Your task to perform on an android device: set the stopwatch Image 0: 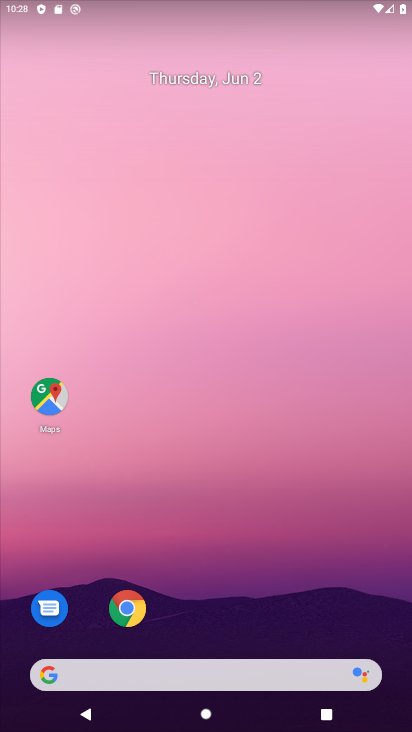
Step 0: click (274, 215)
Your task to perform on an android device: set the stopwatch Image 1: 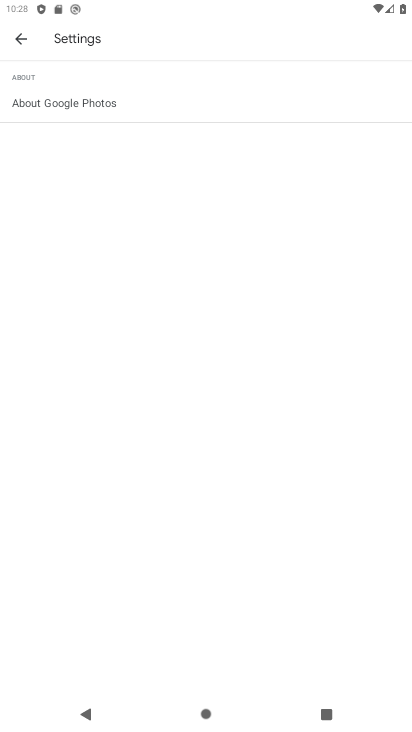
Step 1: press home button
Your task to perform on an android device: set the stopwatch Image 2: 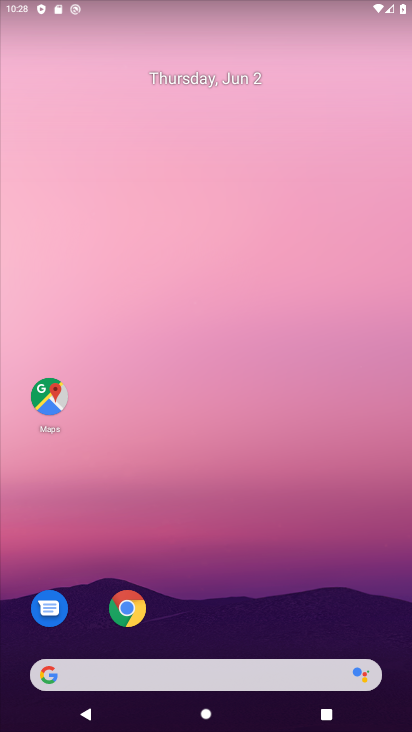
Step 2: drag from (207, 614) to (288, 116)
Your task to perform on an android device: set the stopwatch Image 3: 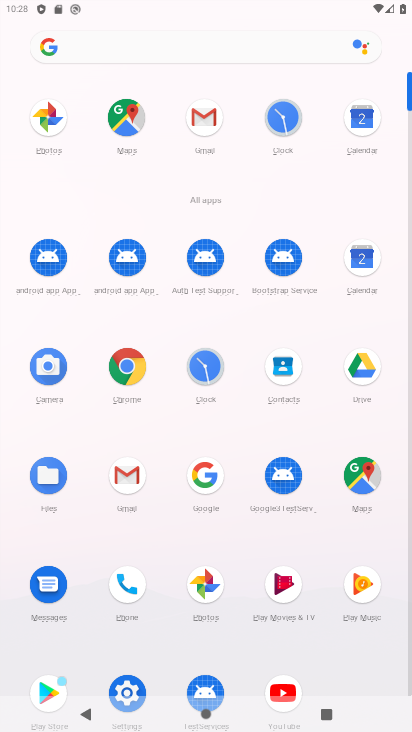
Step 3: click (210, 372)
Your task to perform on an android device: set the stopwatch Image 4: 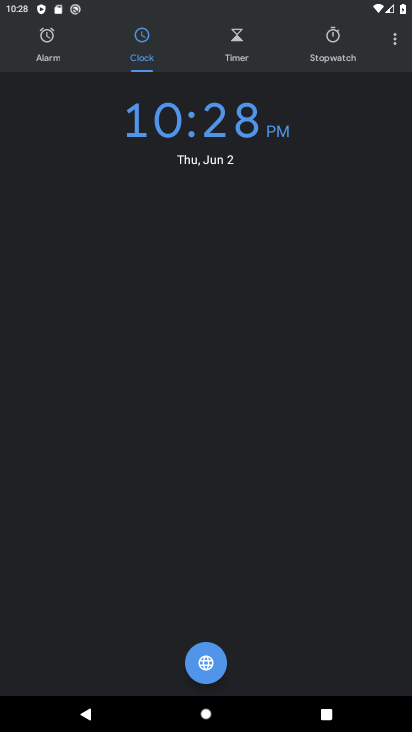
Step 4: click (325, 47)
Your task to perform on an android device: set the stopwatch Image 5: 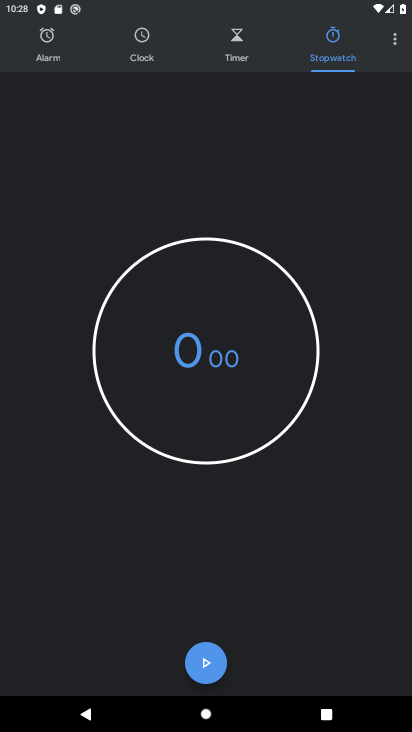
Step 5: click (225, 672)
Your task to perform on an android device: set the stopwatch Image 6: 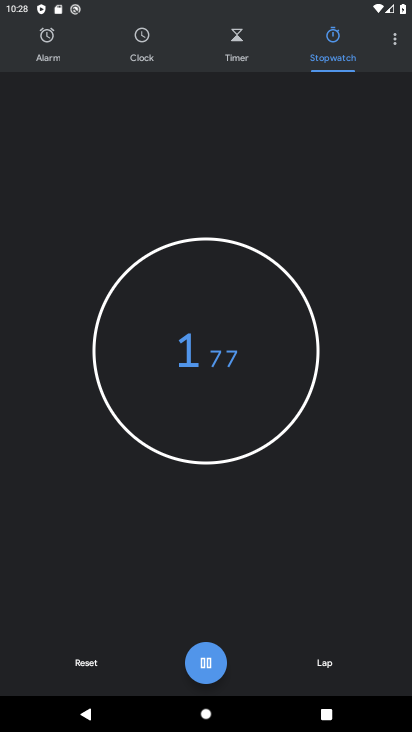
Step 6: task complete